Your task to perform on an android device: turn notification dots on Image 0: 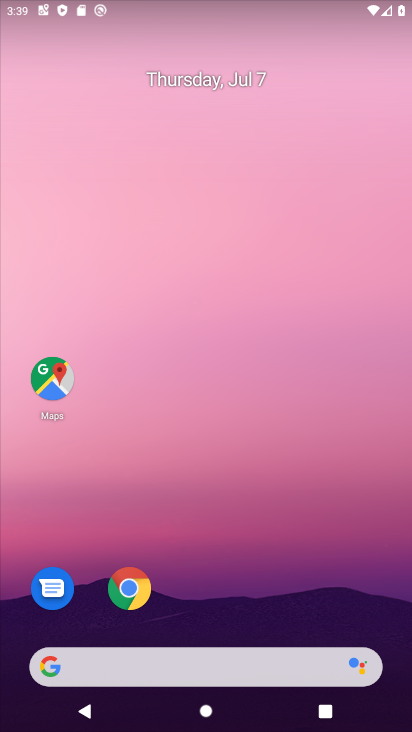
Step 0: drag from (218, 683) to (222, 177)
Your task to perform on an android device: turn notification dots on Image 1: 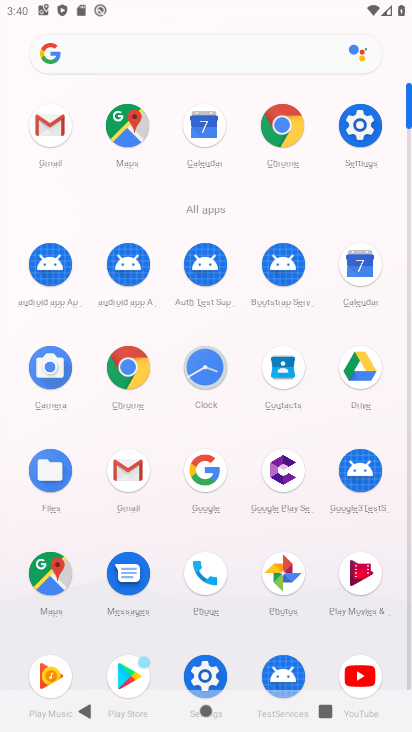
Step 1: click (348, 126)
Your task to perform on an android device: turn notification dots on Image 2: 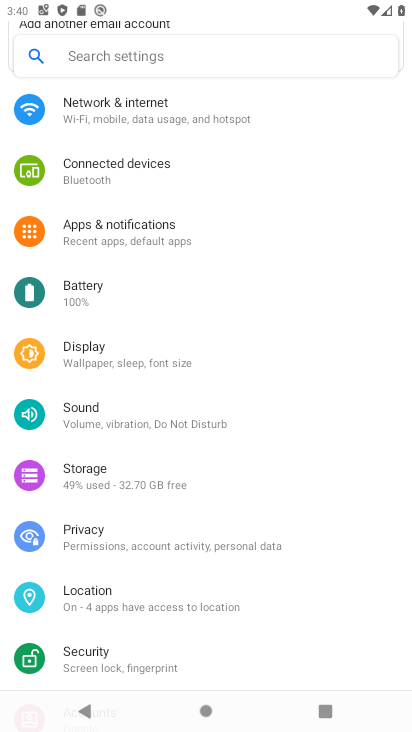
Step 2: click (166, 222)
Your task to perform on an android device: turn notification dots on Image 3: 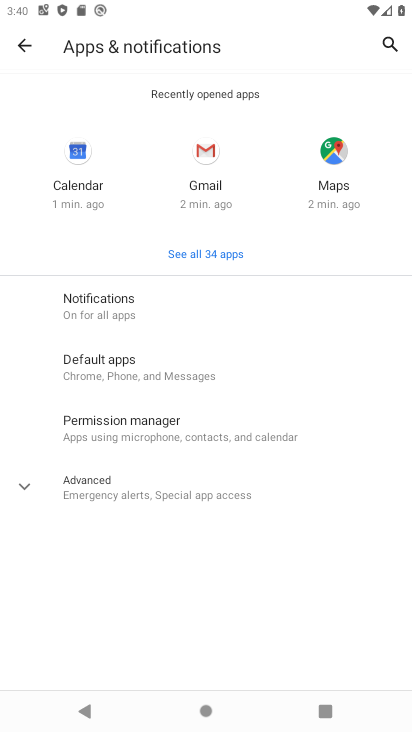
Step 3: click (139, 310)
Your task to perform on an android device: turn notification dots on Image 4: 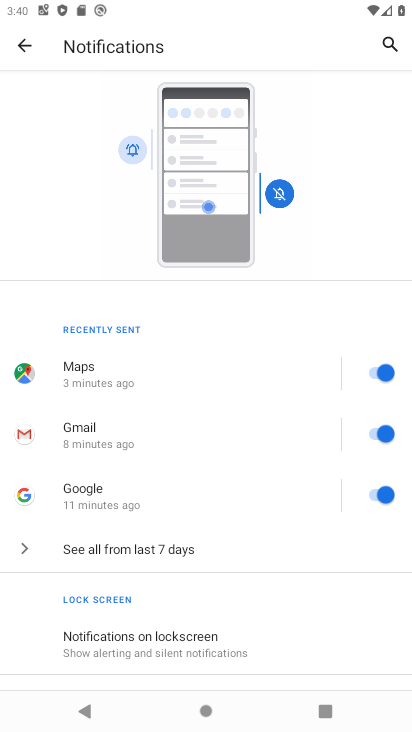
Step 4: drag from (220, 638) to (224, 326)
Your task to perform on an android device: turn notification dots on Image 5: 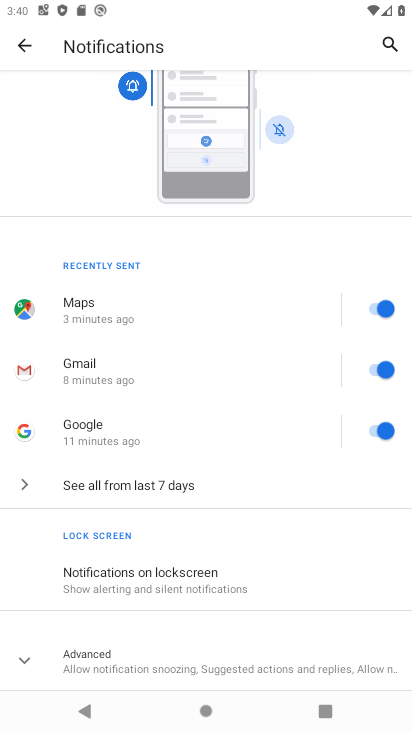
Step 5: click (167, 658)
Your task to perform on an android device: turn notification dots on Image 6: 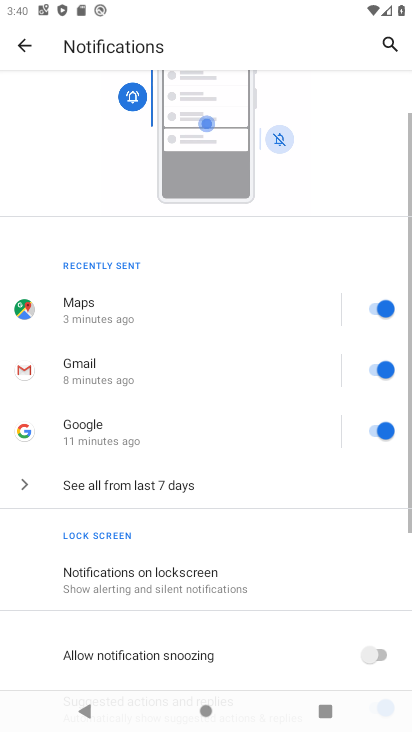
Step 6: task complete